Your task to perform on an android device: Go to sound settings Image 0: 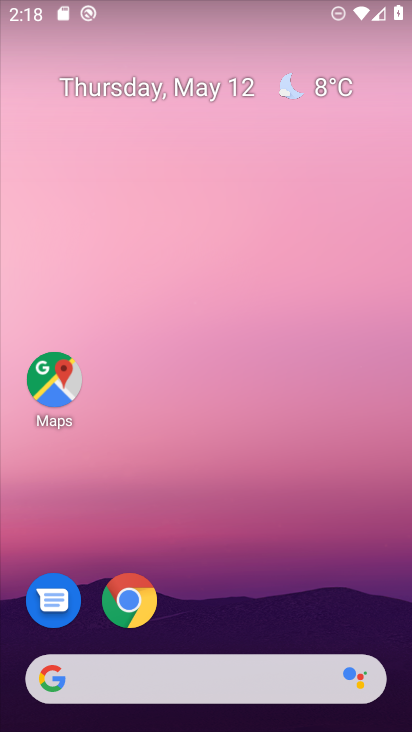
Step 0: drag from (216, 725) to (216, 171)
Your task to perform on an android device: Go to sound settings Image 1: 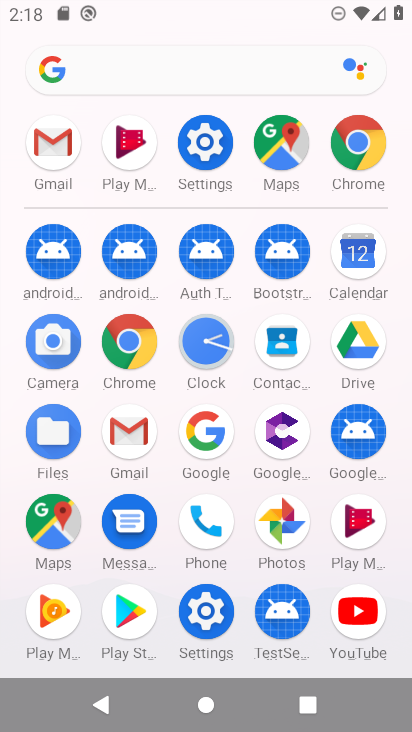
Step 1: click (210, 151)
Your task to perform on an android device: Go to sound settings Image 2: 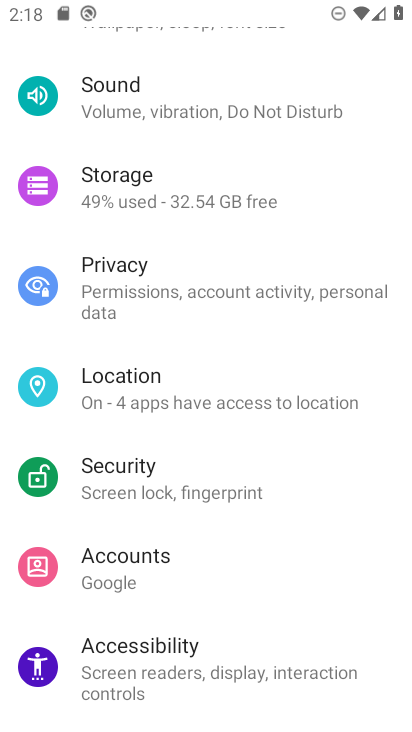
Step 2: click (129, 103)
Your task to perform on an android device: Go to sound settings Image 3: 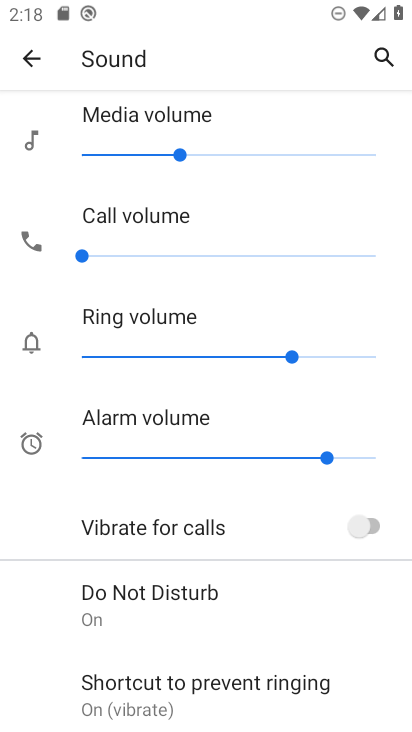
Step 3: task complete